Your task to perform on an android device: change text size in settings app Image 0: 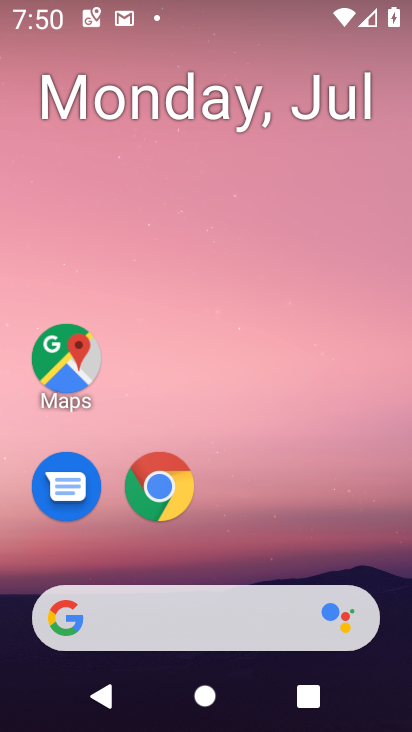
Step 0: drag from (361, 538) to (360, 138)
Your task to perform on an android device: change text size in settings app Image 1: 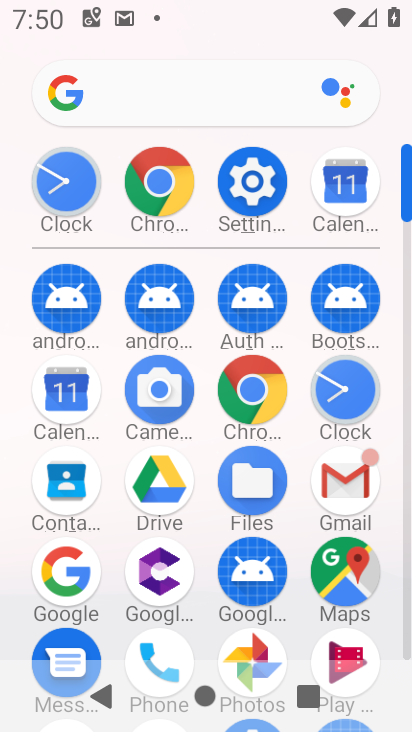
Step 1: click (260, 195)
Your task to perform on an android device: change text size in settings app Image 2: 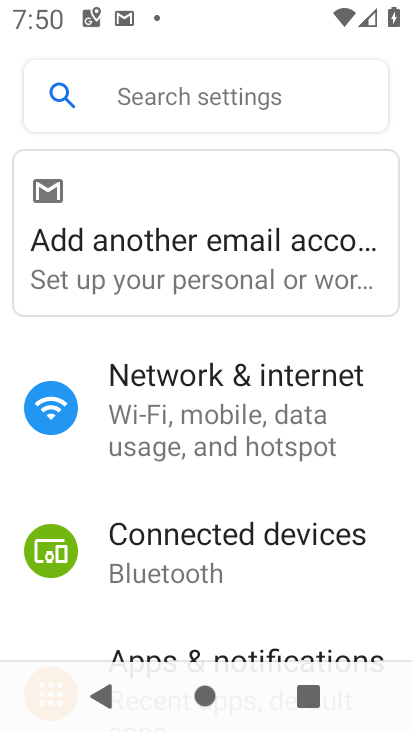
Step 2: drag from (369, 434) to (376, 368)
Your task to perform on an android device: change text size in settings app Image 3: 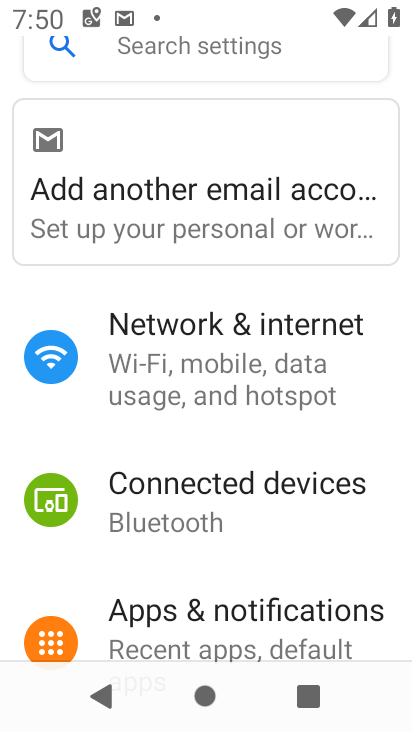
Step 3: drag from (386, 437) to (383, 343)
Your task to perform on an android device: change text size in settings app Image 4: 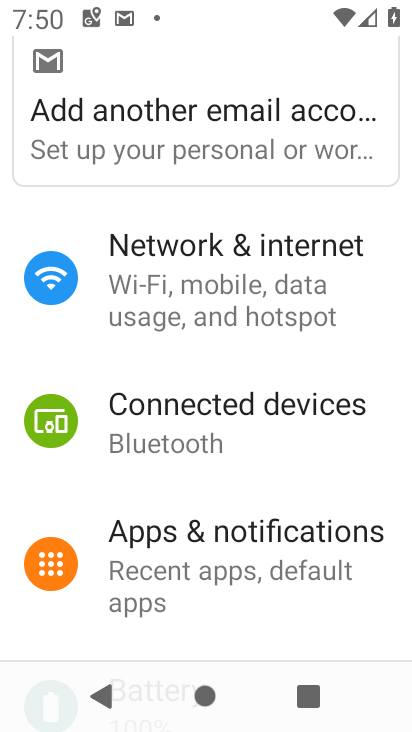
Step 4: drag from (380, 434) to (378, 343)
Your task to perform on an android device: change text size in settings app Image 5: 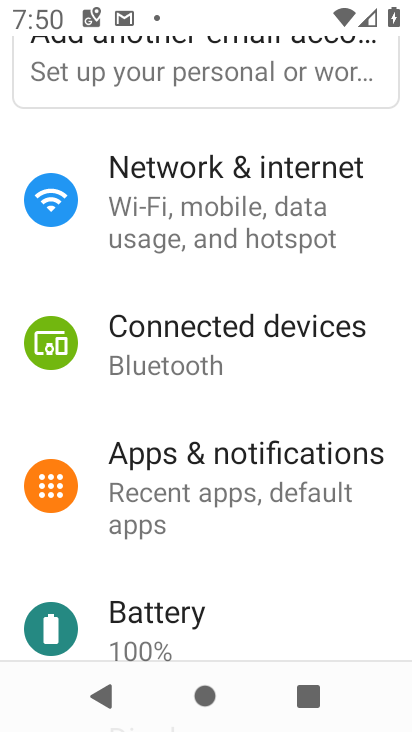
Step 5: drag from (378, 416) to (377, 290)
Your task to perform on an android device: change text size in settings app Image 6: 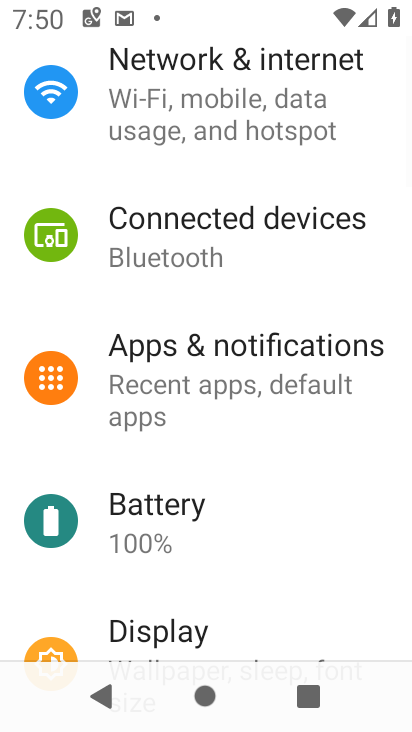
Step 6: drag from (378, 423) to (380, 305)
Your task to perform on an android device: change text size in settings app Image 7: 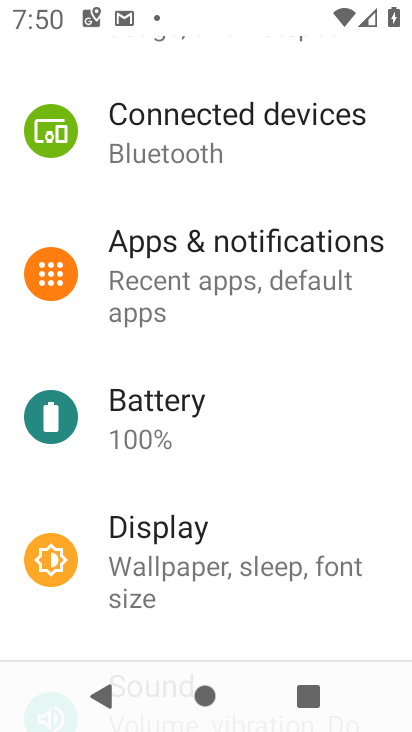
Step 7: drag from (381, 417) to (373, 319)
Your task to perform on an android device: change text size in settings app Image 8: 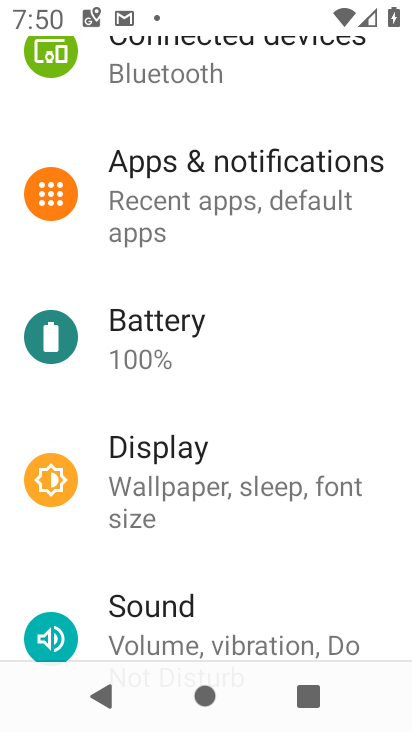
Step 8: drag from (375, 430) to (368, 321)
Your task to perform on an android device: change text size in settings app Image 9: 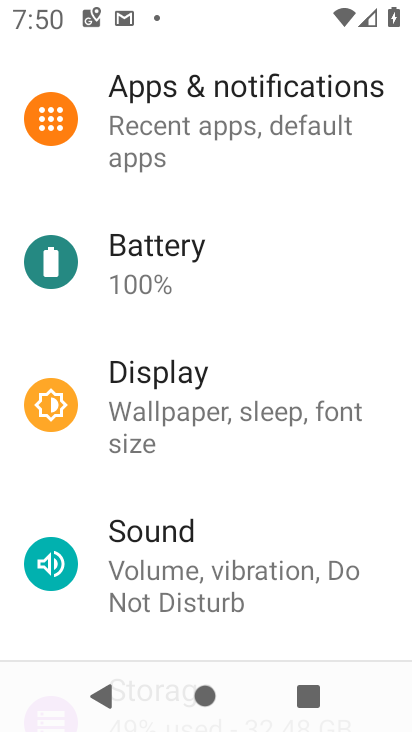
Step 9: drag from (376, 433) to (373, 333)
Your task to perform on an android device: change text size in settings app Image 10: 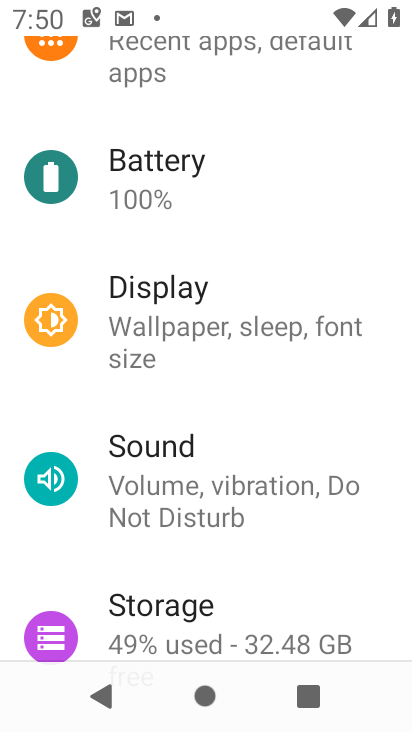
Step 10: click (372, 332)
Your task to perform on an android device: change text size in settings app Image 11: 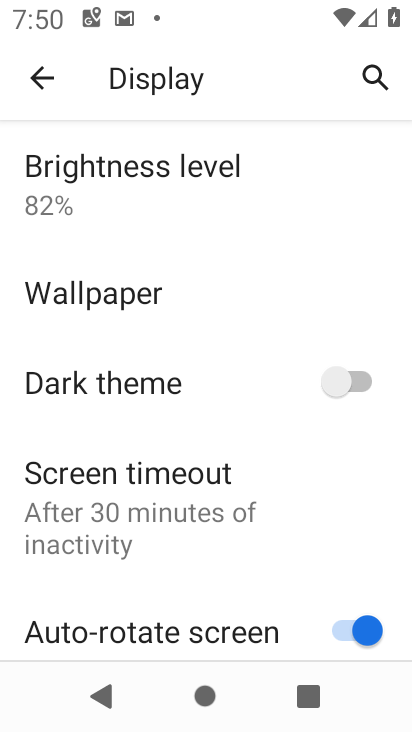
Step 11: drag from (292, 462) to (284, 370)
Your task to perform on an android device: change text size in settings app Image 12: 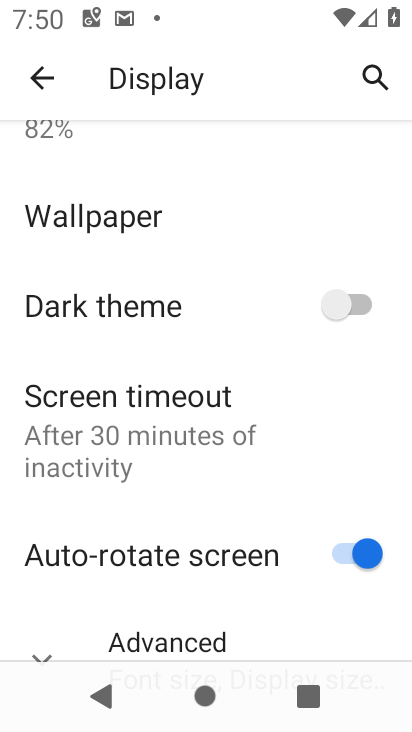
Step 12: drag from (283, 453) to (279, 333)
Your task to perform on an android device: change text size in settings app Image 13: 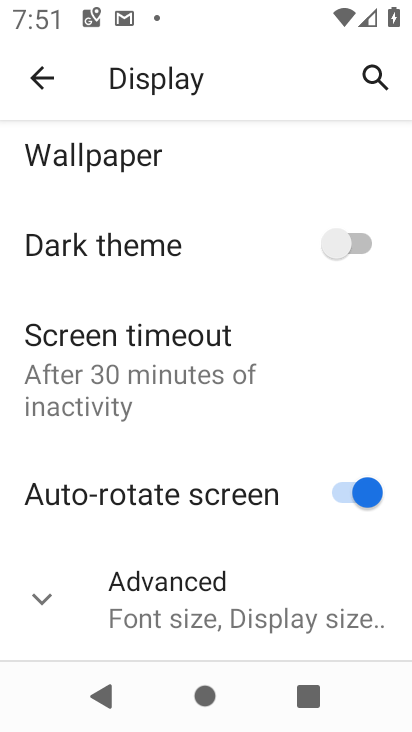
Step 13: click (257, 595)
Your task to perform on an android device: change text size in settings app Image 14: 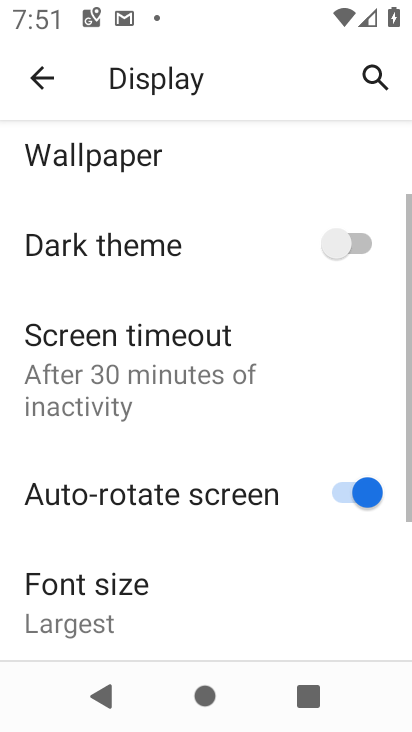
Step 14: drag from (289, 551) to (297, 332)
Your task to perform on an android device: change text size in settings app Image 15: 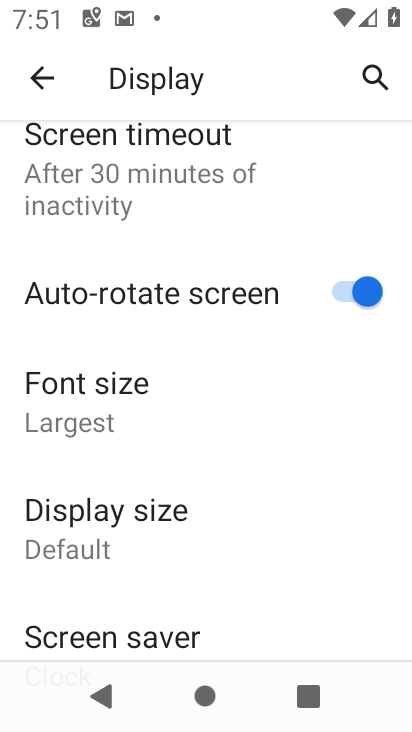
Step 15: click (279, 413)
Your task to perform on an android device: change text size in settings app Image 16: 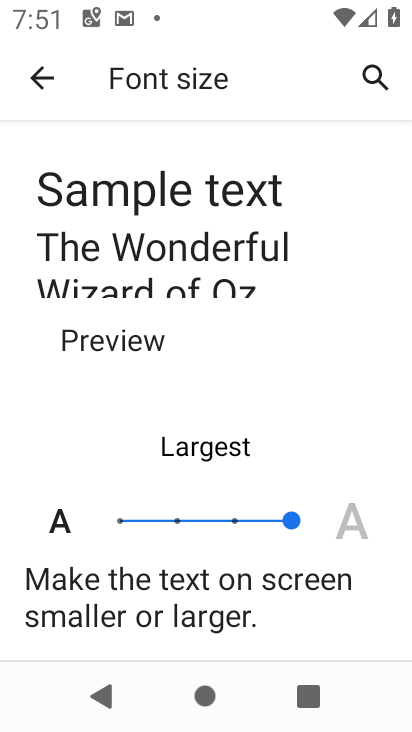
Step 16: click (230, 518)
Your task to perform on an android device: change text size in settings app Image 17: 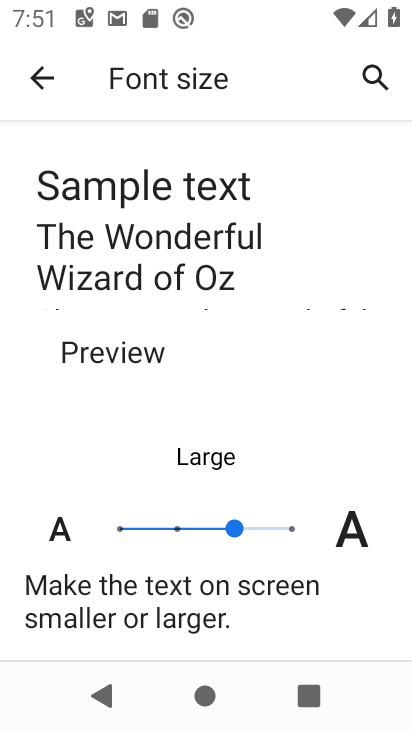
Step 17: task complete